Your task to perform on an android device: Open Youtube and go to the subscriptions tab Image 0: 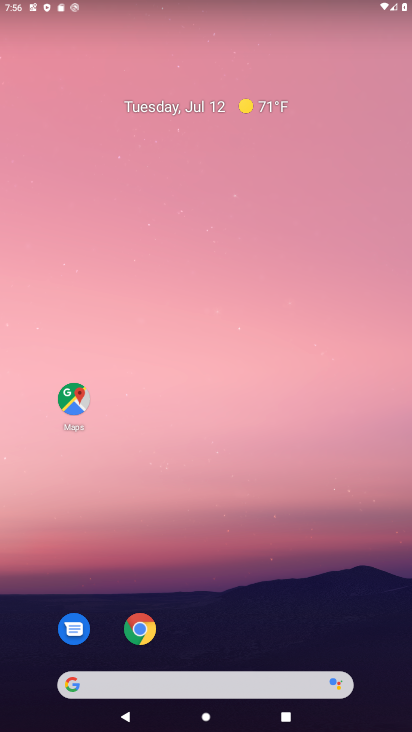
Step 0: drag from (370, 662) to (327, 124)
Your task to perform on an android device: Open Youtube and go to the subscriptions tab Image 1: 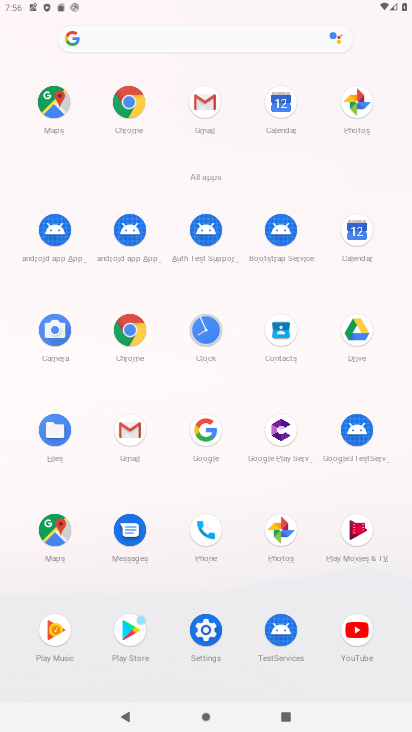
Step 1: click (359, 635)
Your task to perform on an android device: Open Youtube and go to the subscriptions tab Image 2: 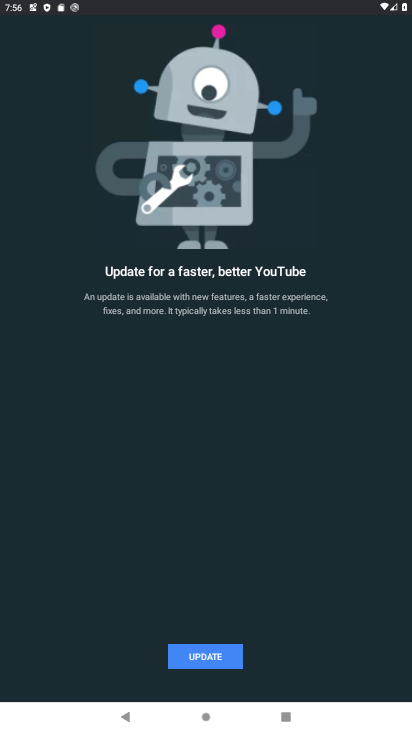
Step 2: press back button
Your task to perform on an android device: Open Youtube and go to the subscriptions tab Image 3: 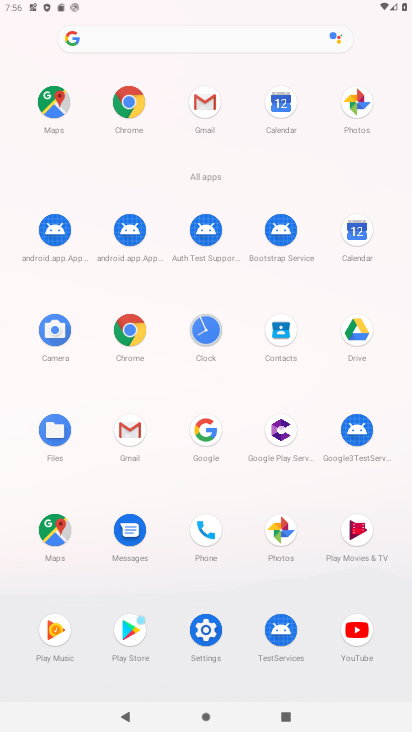
Step 3: click (350, 632)
Your task to perform on an android device: Open Youtube and go to the subscriptions tab Image 4: 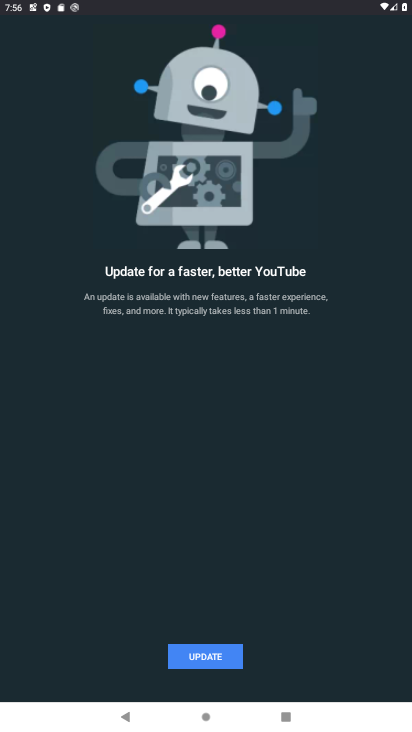
Step 4: click (187, 661)
Your task to perform on an android device: Open Youtube and go to the subscriptions tab Image 5: 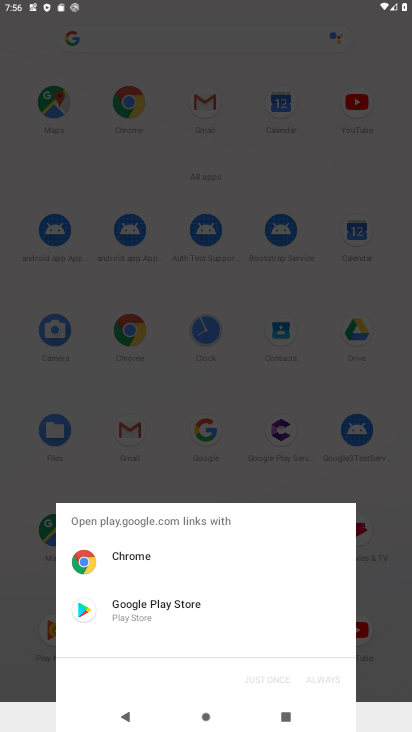
Step 5: click (130, 607)
Your task to perform on an android device: Open Youtube and go to the subscriptions tab Image 6: 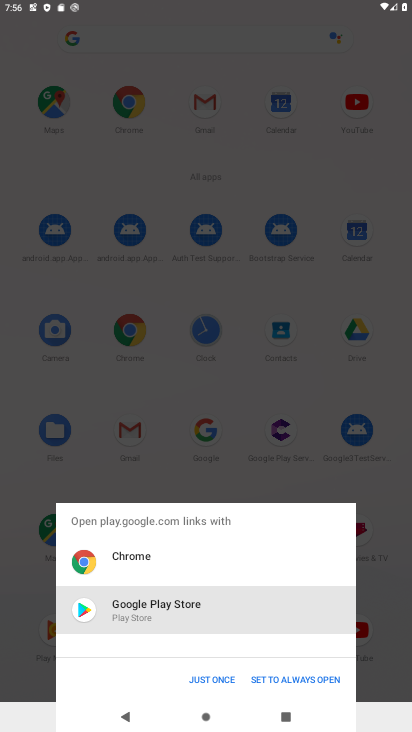
Step 6: click (204, 675)
Your task to perform on an android device: Open Youtube and go to the subscriptions tab Image 7: 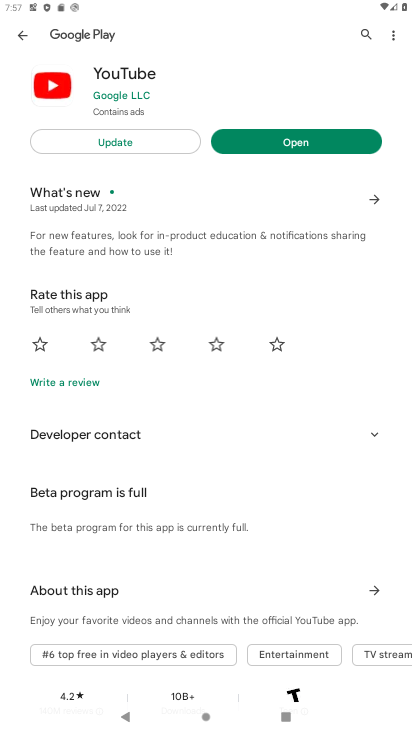
Step 7: click (138, 139)
Your task to perform on an android device: Open Youtube and go to the subscriptions tab Image 8: 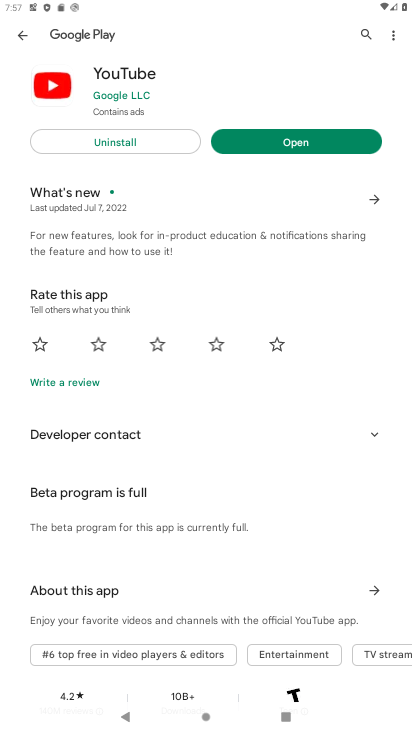
Step 8: click (276, 142)
Your task to perform on an android device: Open Youtube and go to the subscriptions tab Image 9: 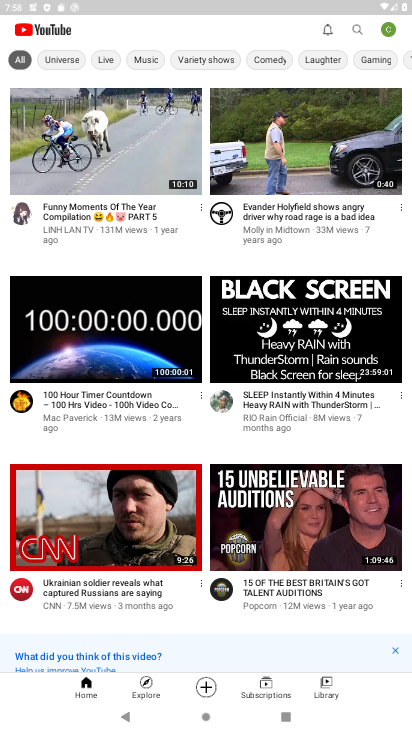
Step 9: click (253, 684)
Your task to perform on an android device: Open Youtube and go to the subscriptions tab Image 10: 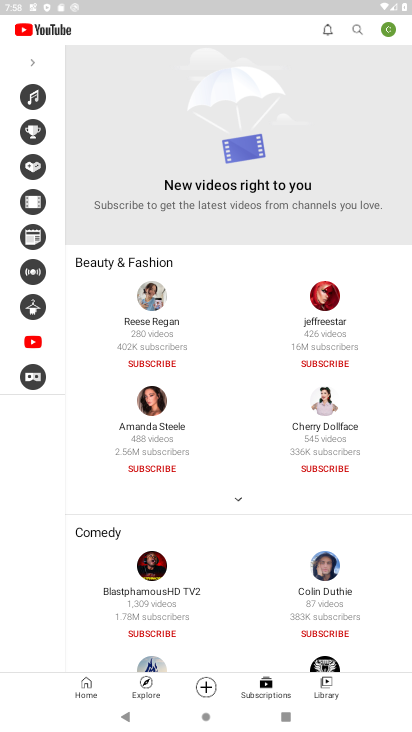
Step 10: task complete